Your task to perform on an android device: turn pop-ups on in chrome Image 0: 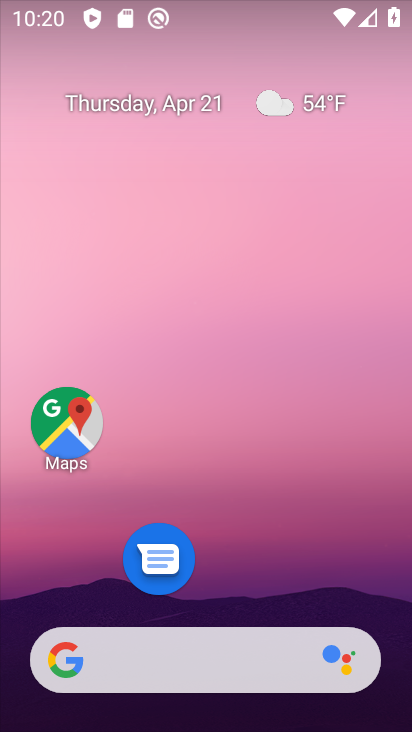
Step 0: drag from (299, 369) to (328, 70)
Your task to perform on an android device: turn pop-ups on in chrome Image 1: 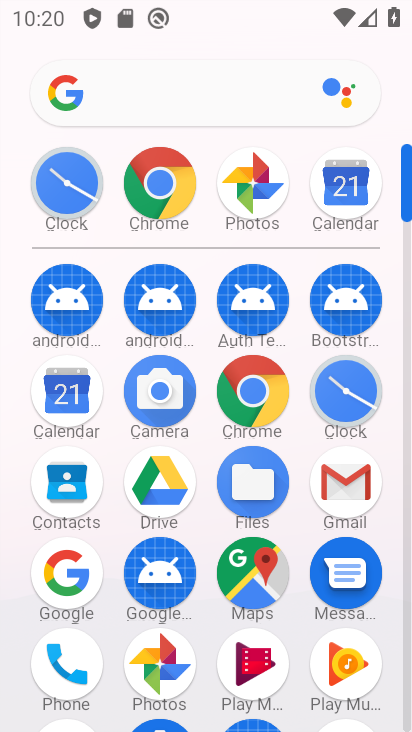
Step 1: click (165, 186)
Your task to perform on an android device: turn pop-ups on in chrome Image 2: 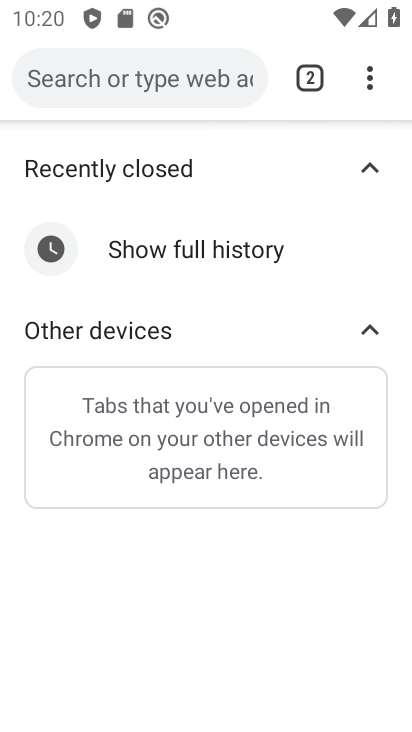
Step 2: click (366, 82)
Your task to perform on an android device: turn pop-ups on in chrome Image 3: 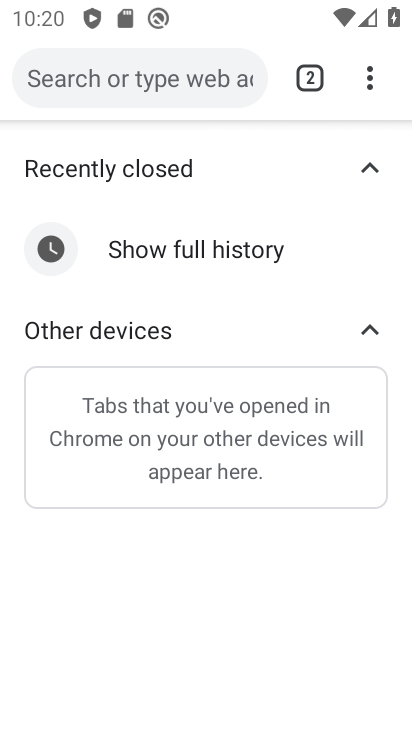
Step 3: click (369, 81)
Your task to perform on an android device: turn pop-ups on in chrome Image 4: 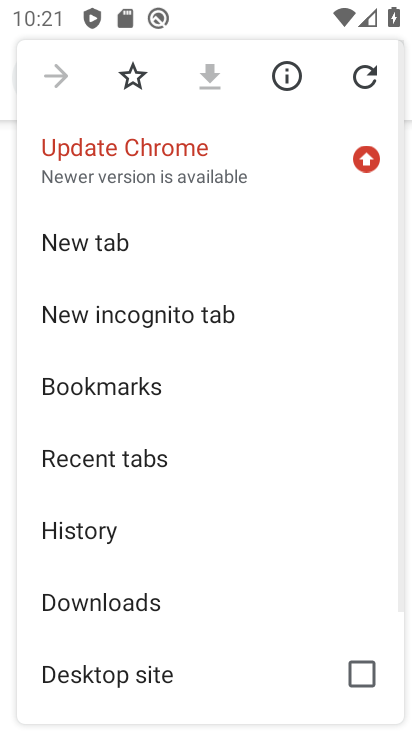
Step 4: drag from (178, 531) to (235, 85)
Your task to perform on an android device: turn pop-ups on in chrome Image 5: 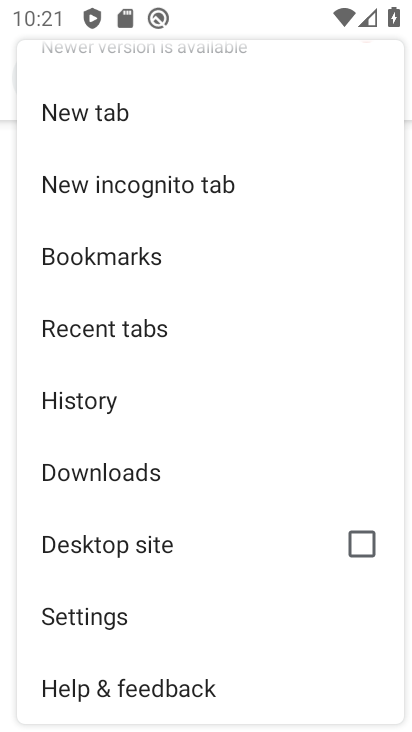
Step 5: click (141, 616)
Your task to perform on an android device: turn pop-ups on in chrome Image 6: 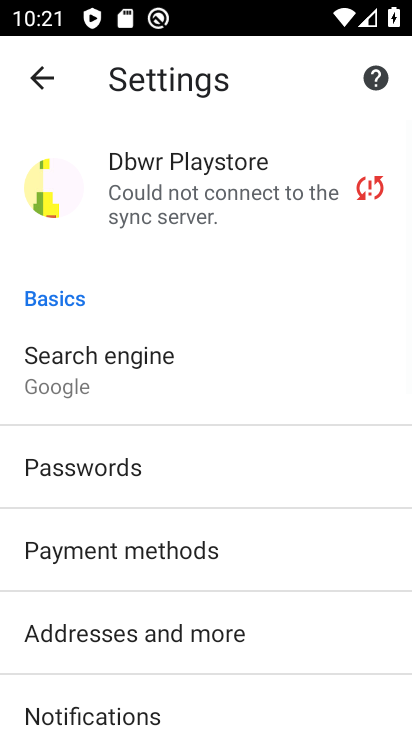
Step 6: drag from (150, 642) to (242, 156)
Your task to perform on an android device: turn pop-ups on in chrome Image 7: 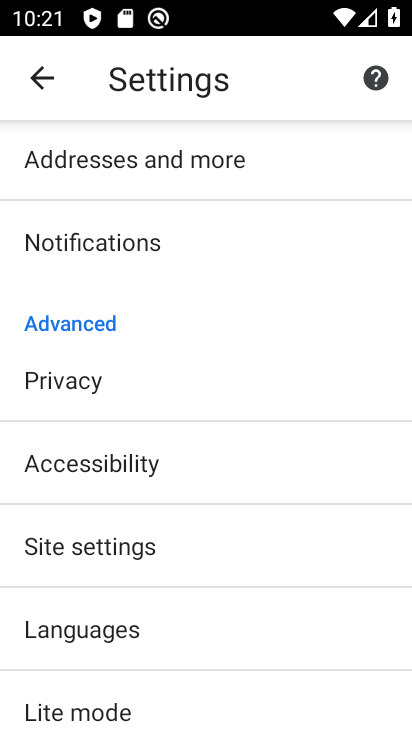
Step 7: click (203, 547)
Your task to perform on an android device: turn pop-ups on in chrome Image 8: 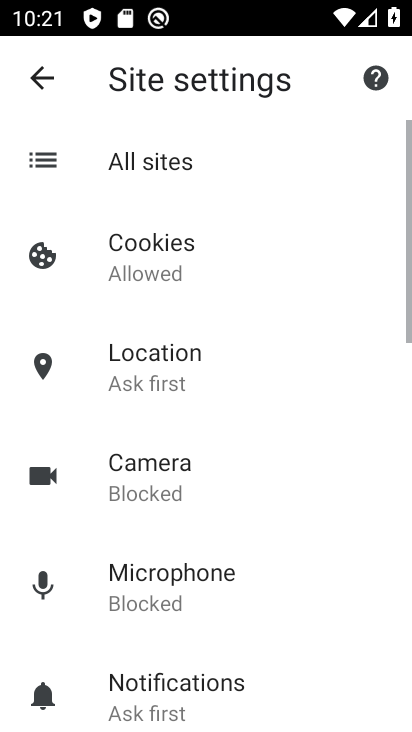
Step 8: drag from (216, 707) to (262, 156)
Your task to perform on an android device: turn pop-ups on in chrome Image 9: 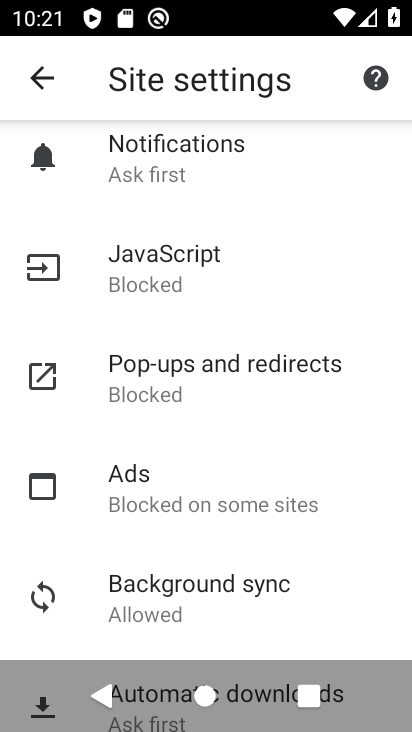
Step 9: click (276, 369)
Your task to perform on an android device: turn pop-ups on in chrome Image 10: 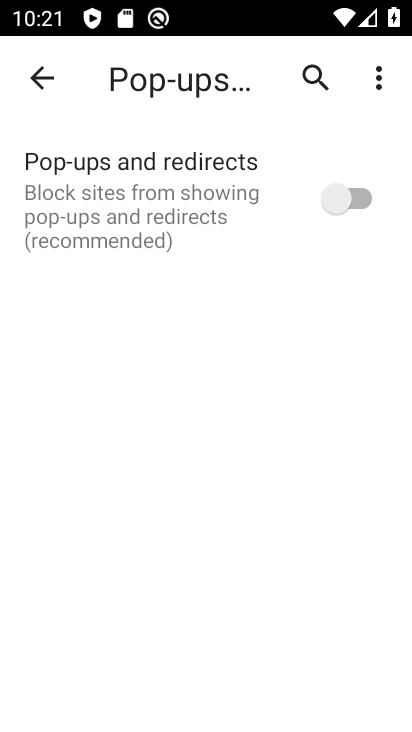
Step 10: click (334, 208)
Your task to perform on an android device: turn pop-ups on in chrome Image 11: 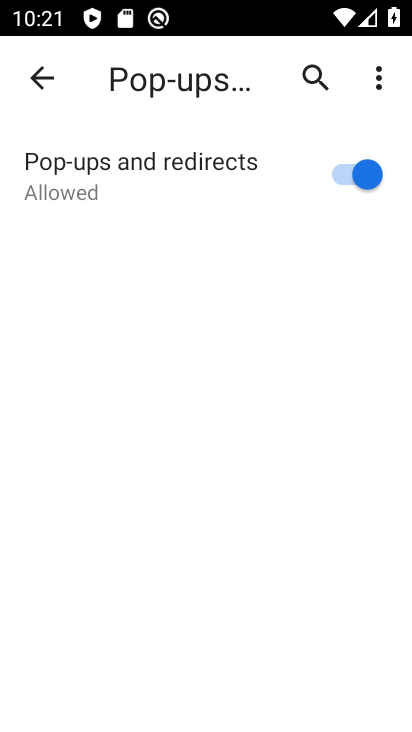
Step 11: task complete